Your task to perform on an android device: What's on my calendar today? Image 0: 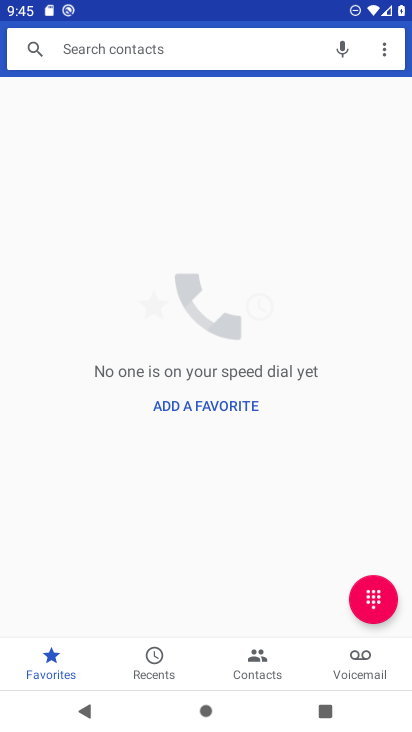
Step 0: press home button
Your task to perform on an android device: What's on my calendar today? Image 1: 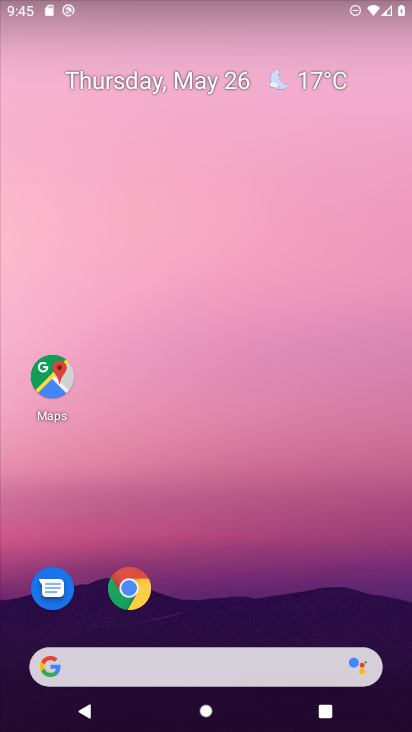
Step 1: drag from (370, 613) to (294, 119)
Your task to perform on an android device: What's on my calendar today? Image 2: 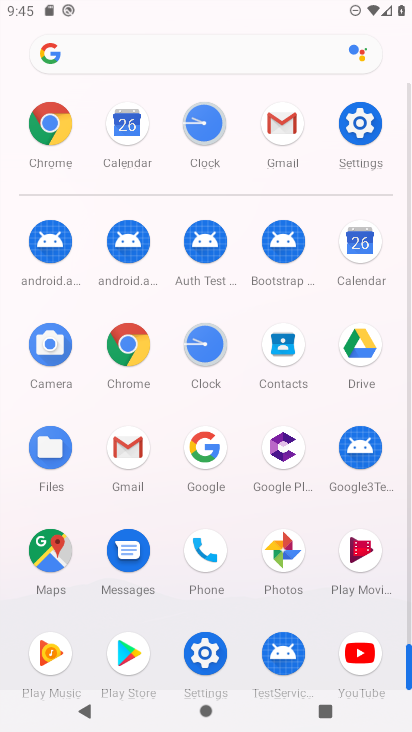
Step 2: click (349, 228)
Your task to perform on an android device: What's on my calendar today? Image 3: 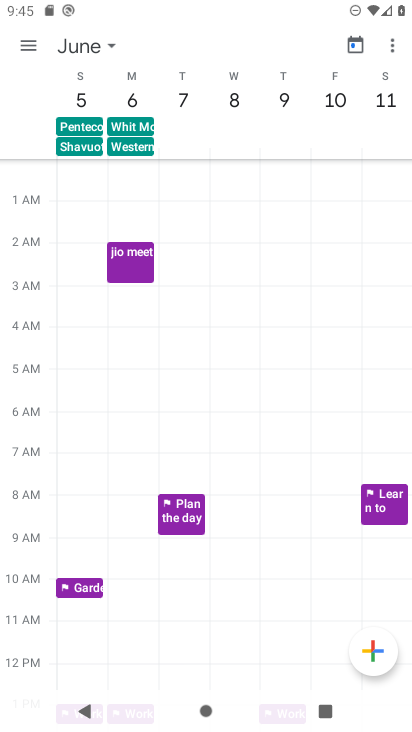
Step 3: click (23, 44)
Your task to perform on an android device: What's on my calendar today? Image 4: 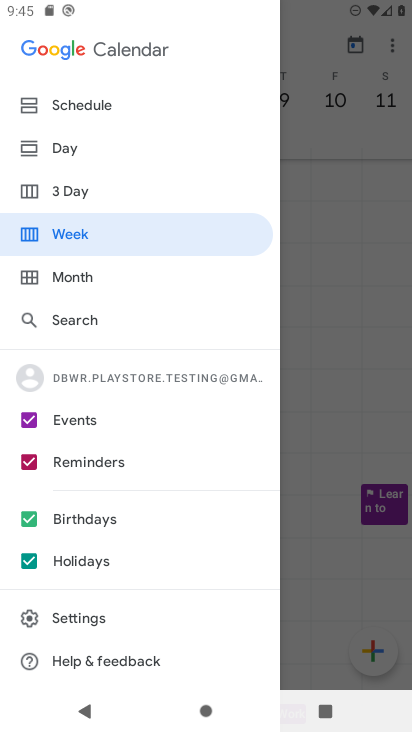
Step 4: click (65, 141)
Your task to perform on an android device: What's on my calendar today? Image 5: 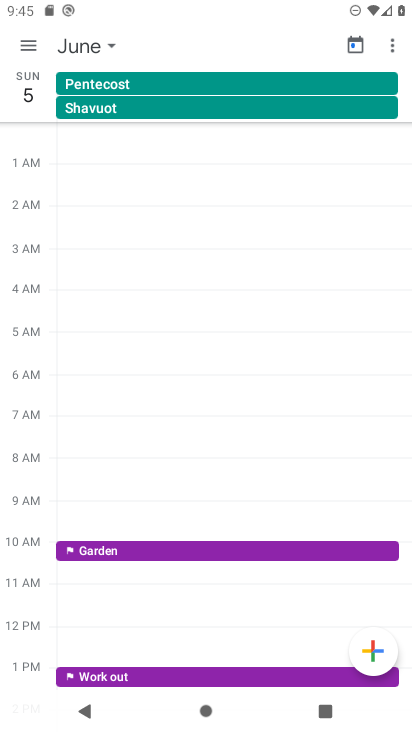
Step 5: click (104, 49)
Your task to perform on an android device: What's on my calendar today? Image 6: 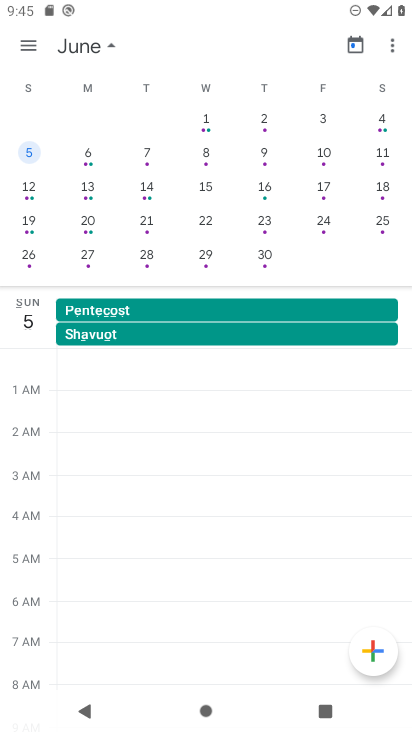
Step 6: drag from (56, 187) to (319, 195)
Your task to perform on an android device: What's on my calendar today? Image 7: 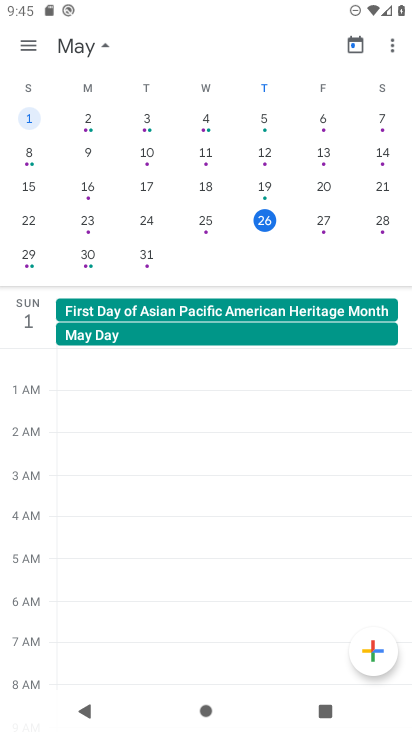
Step 7: click (266, 219)
Your task to perform on an android device: What's on my calendar today? Image 8: 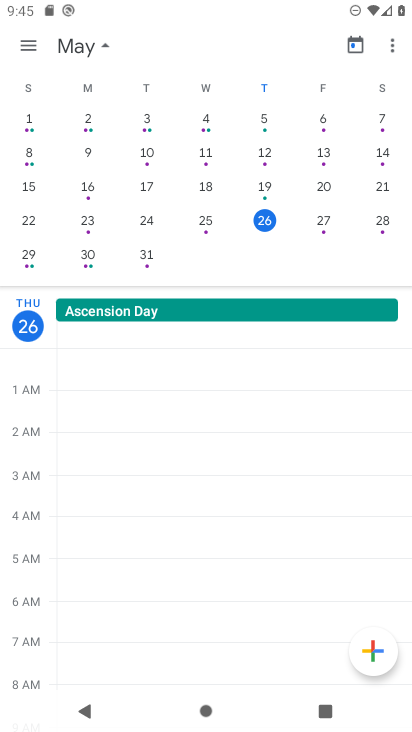
Step 8: task complete